Your task to perform on an android device: change the clock display to digital Image 0: 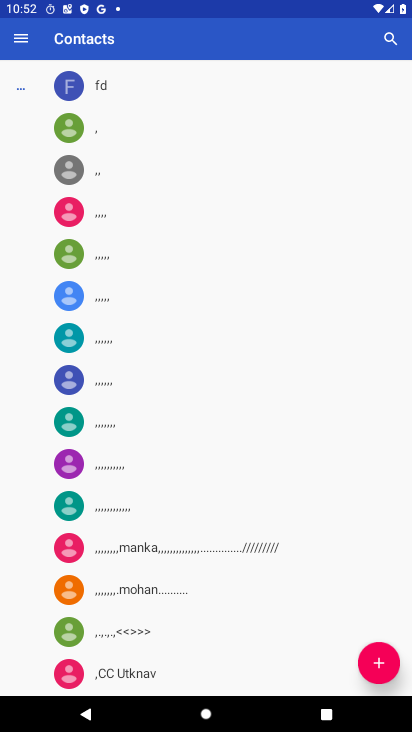
Step 0: press home button
Your task to perform on an android device: change the clock display to digital Image 1: 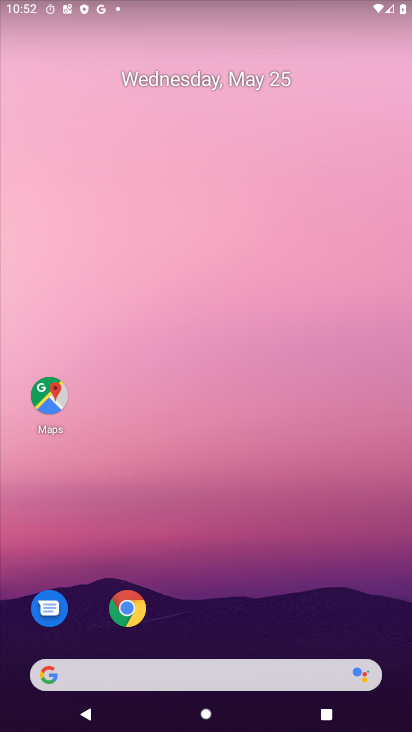
Step 1: drag from (262, 340) to (274, 31)
Your task to perform on an android device: change the clock display to digital Image 2: 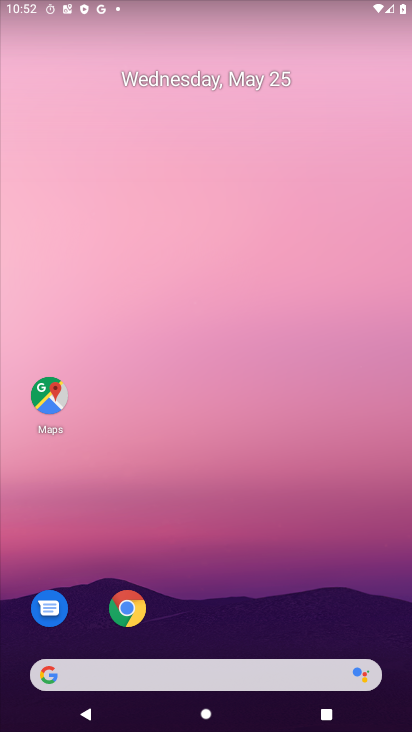
Step 2: drag from (250, 640) to (248, 18)
Your task to perform on an android device: change the clock display to digital Image 3: 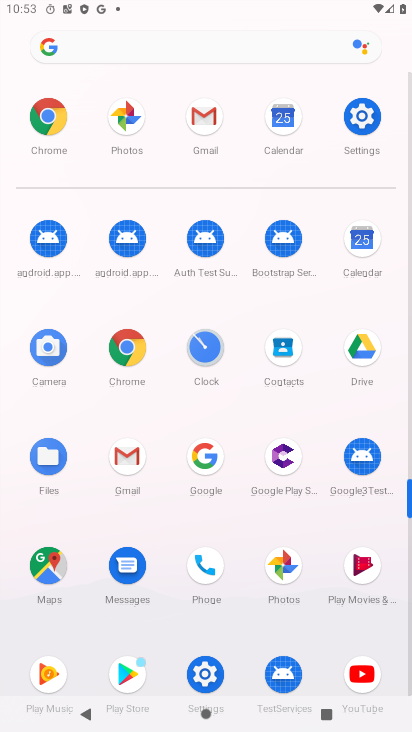
Step 3: click (204, 354)
Your task to perform on an android device: change the clock display to digital Image 4: 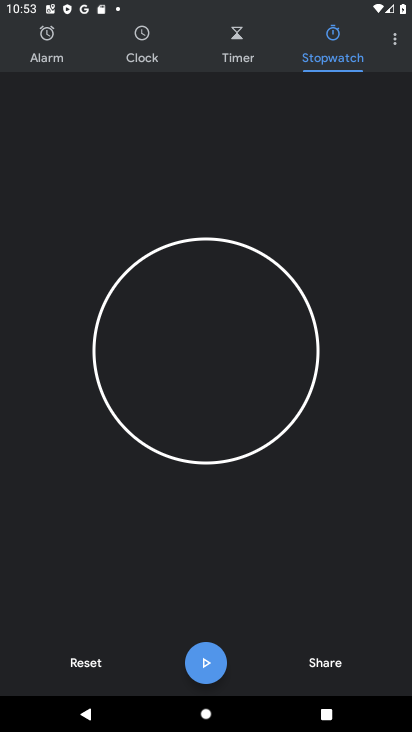
Step 4: click (400, 42)
Your task to perform on an android device: change the clock display to digital Image 5: 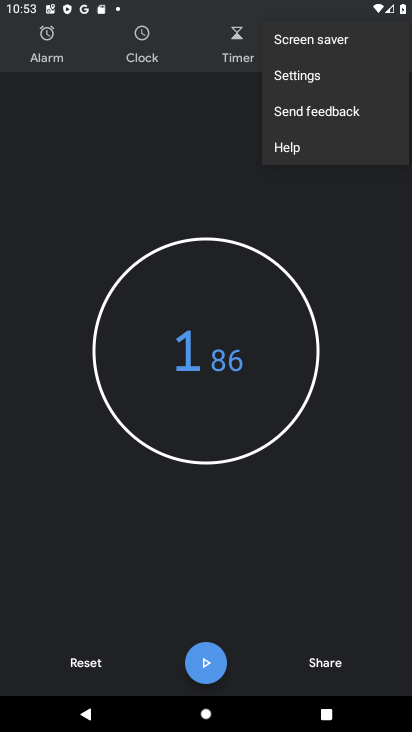
Step 5: click (300, 81)
Your task to perform on an android device: change the clock display to digital Image 6: 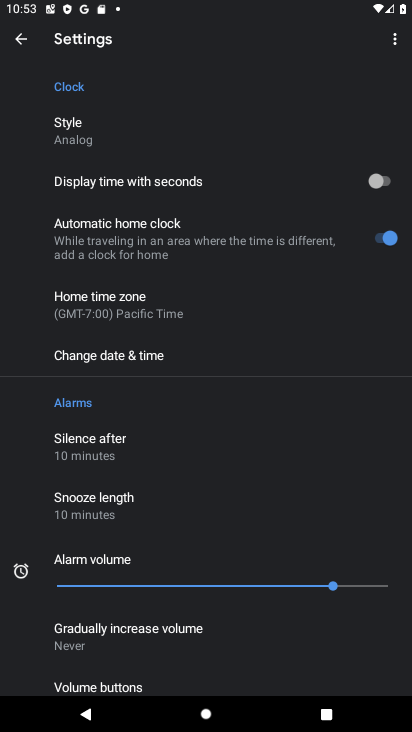
Step 6: click (76, 138)
Your task to perform on an android device: change the clock display to digital Image 7: 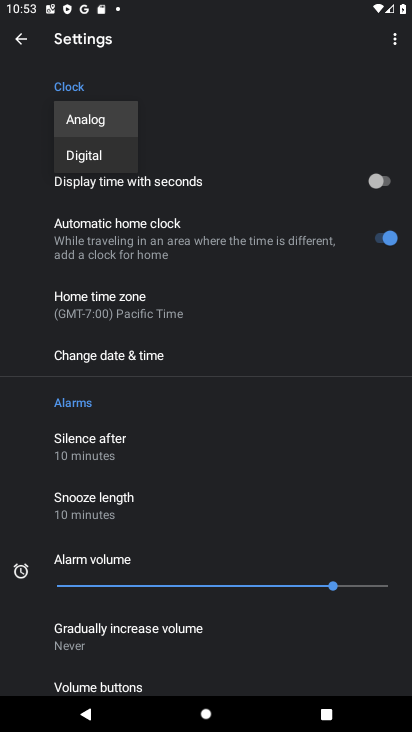
Step 7: click (82, 158)
Your task to perform on an android device: change the clock display to digital Image 8: 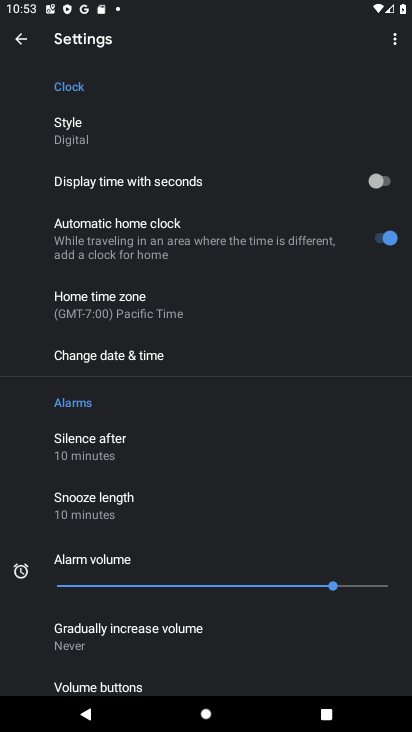
Step 8: task complete